Your task to perform on an android device: all mails in gmail Image 0: 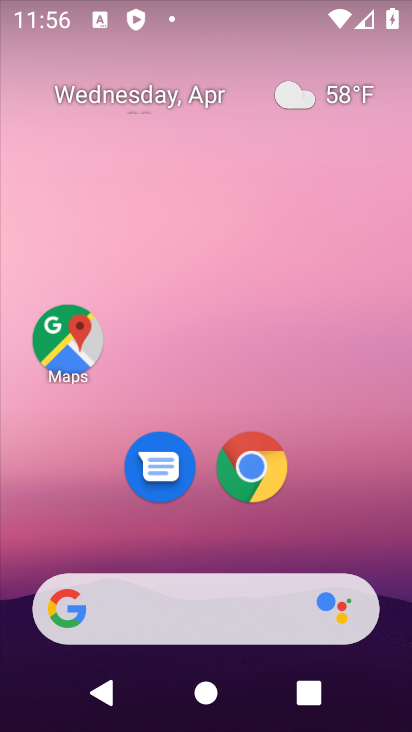
Step 0: drag from (207, 242) to (220, 156)
Your task to perform on an android device: all mails in gmail Image 1: 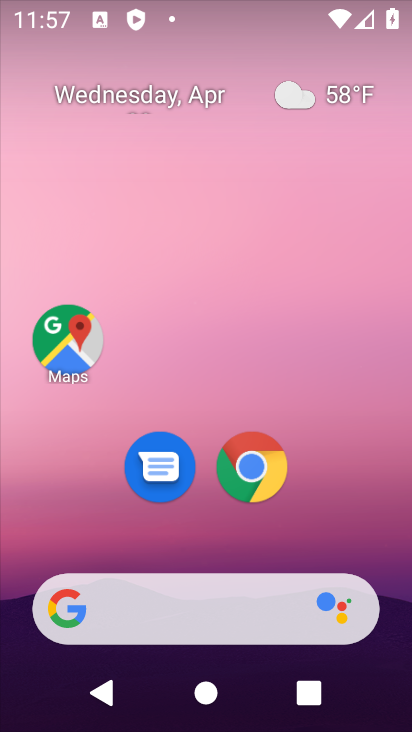
Step 1: drag from (205, 526) to (247, 83)
Your task to perform on an android device: all mails in gmail Image 2: 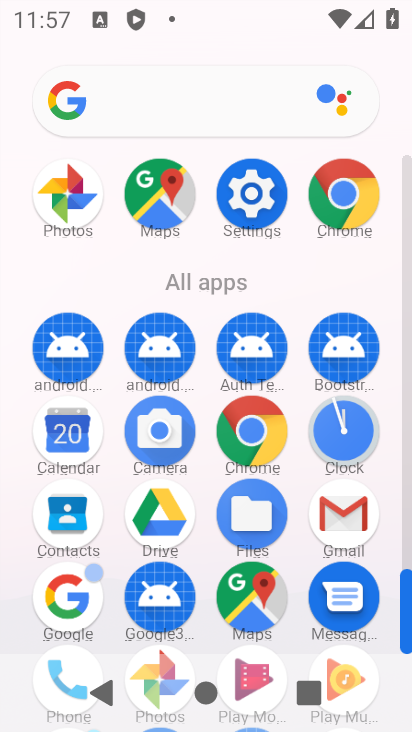
Step 2: click (339, 511)
Your task to perform on an android device: all mails in gmail Image 3: 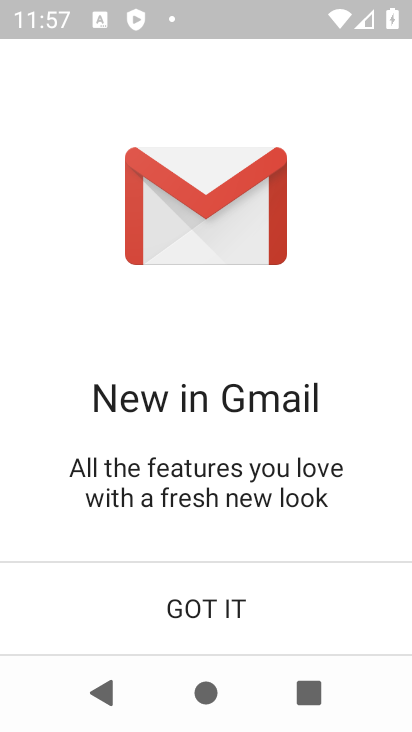
Step 3: click (235, 608)
Your task to perform on an android device: all mails in gmail Image 4: 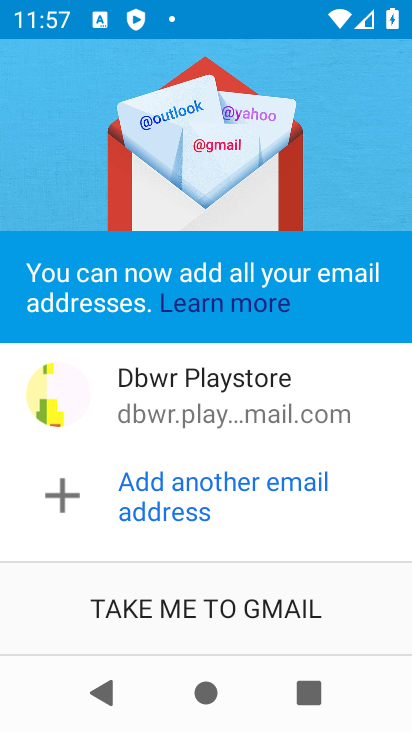
Step 4: click (192, 593)
Your task to perform on an android device: all mails in gmail Image 5: 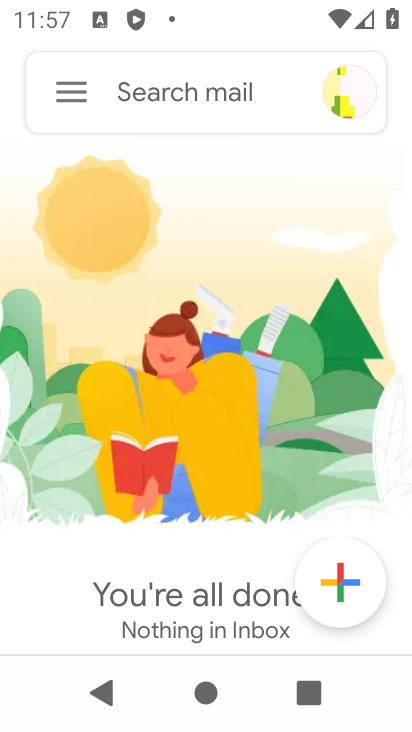
Step 5: click (70, 94)
Your task to perform on an android device: all mails in gmail Image 6: 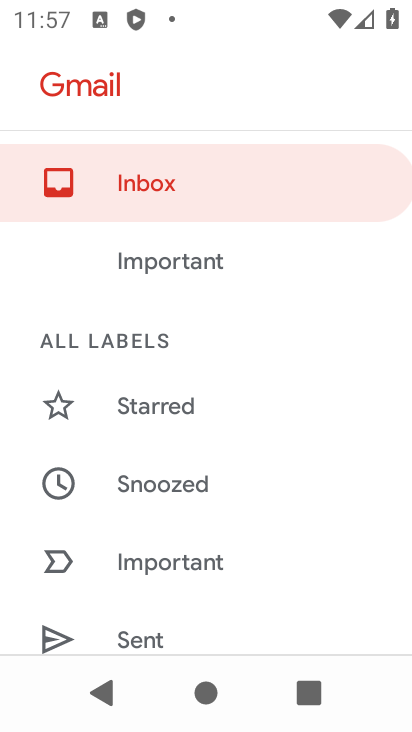
Step 6: drag from (197, 624) to (243, 128)
Your task to perform on an android device: all mails in gmail Image 7: 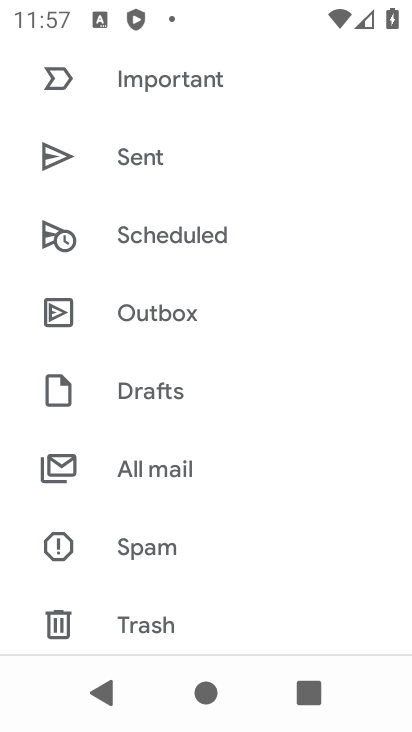
Step 7: drag from (227, 556) to (229, 335)
Your task to perform on an android device: all mails in gmail Image 8: 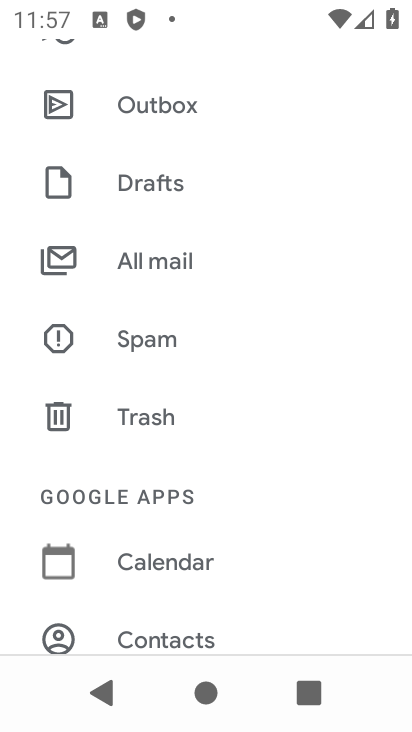
Step 8: click (171, 260)
Your task to perform on an android device: all mails in gmail Image 9: 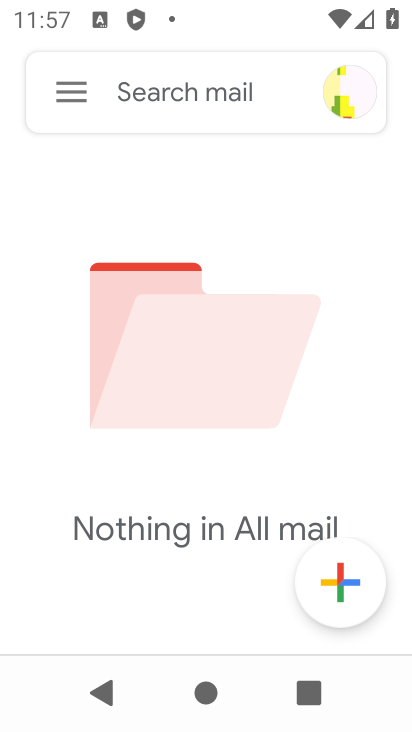
Step 9: task complete